Your task to perform on an android device: What's a good restaurant in Phoenix? Image 0: 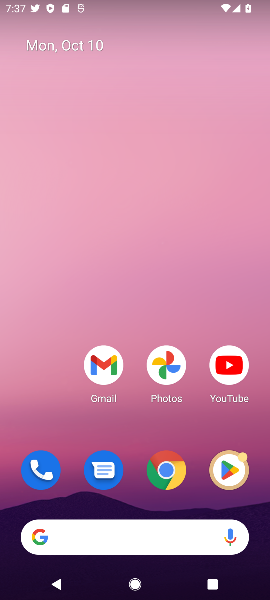
Step 0: click (163, 470)
Your task to perform on an android device: What's a good restaurant in Phoenix? Image 1: 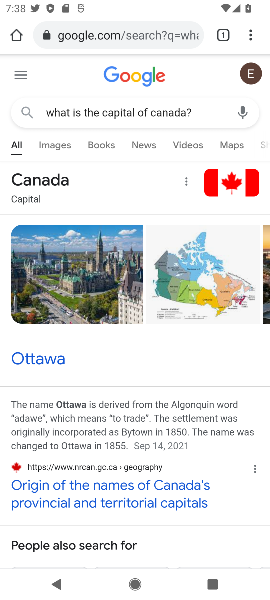
Step 1: click (122, 29)
Your task to perform on an android device: What's a good restaurant in Phoenix? Image 2: 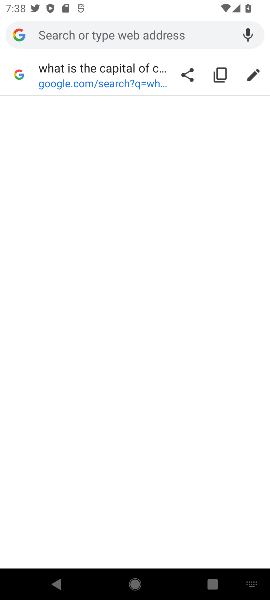
Step 2: type "What's a good restaurant in Phoenix?"
Your task to perform on an android device: What's a good restaurant in Phoenix? Image 3: 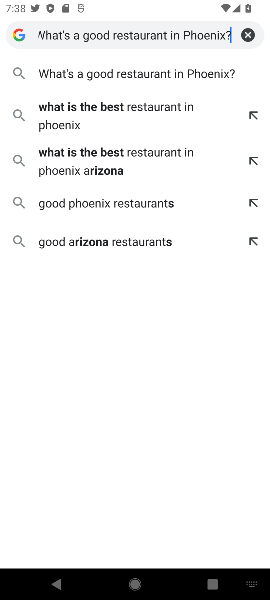
Step 3: click (96, 71)
Your task to perform on an android device: What's a good restaurant in Phoenix? Image 4: 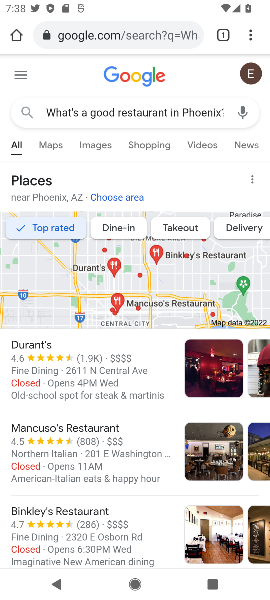
Step 4: task complete